Your task to perform on an android device: Is it going to rain this weekend? Image 0: 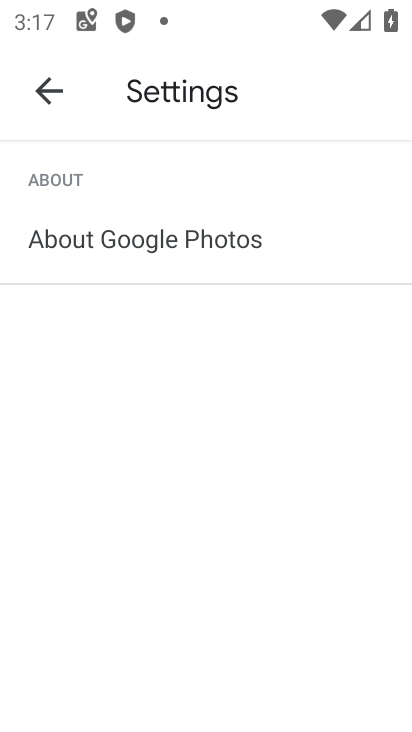
Step 0: click (41, 105)
Your task to perform on an android device: Is it going to rain this weekend? Image 1: 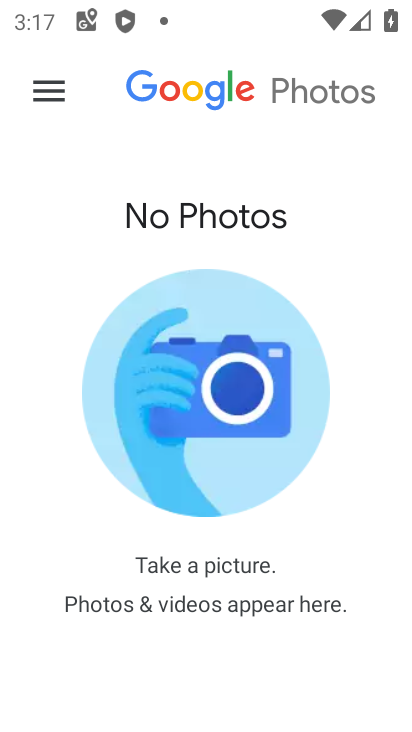
Step 1: press back button
Your task to perform on an android device: Is it going to rain this weekend? Image 2: 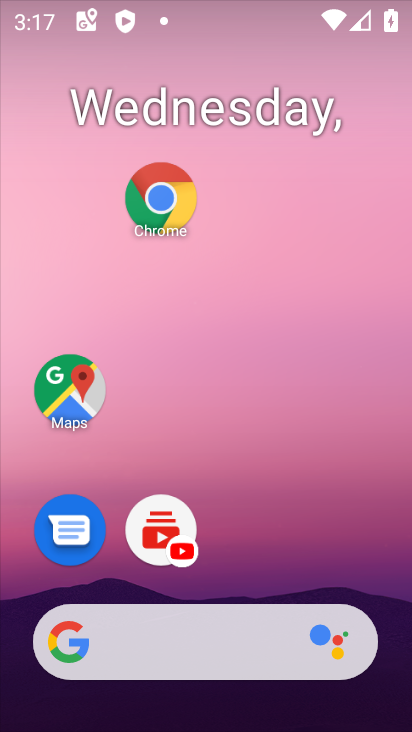
Step 2: drag from (289, 716) to (170, 209)
Your task to perform on an android device: Is it going to rain this weekend? Image 3: 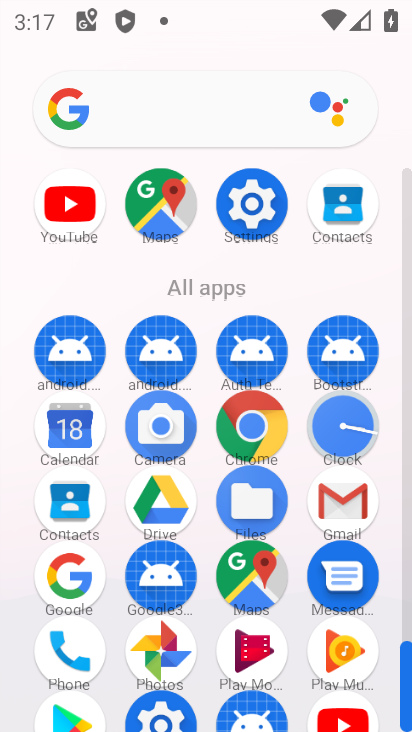
Step 3: press home button
Your task to perform on an android device: Is it going to rain this weekend? Image 4: 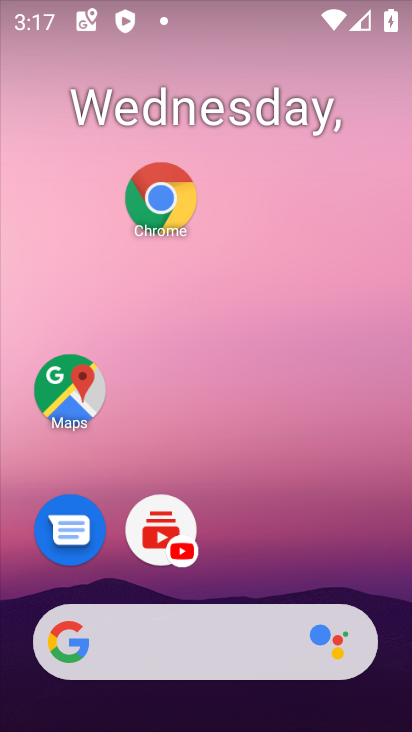
Step 4: drag from (6, 236) to (409, 536)
Your task to perform on an android device: Is it going to rain this weekend? Image 5: 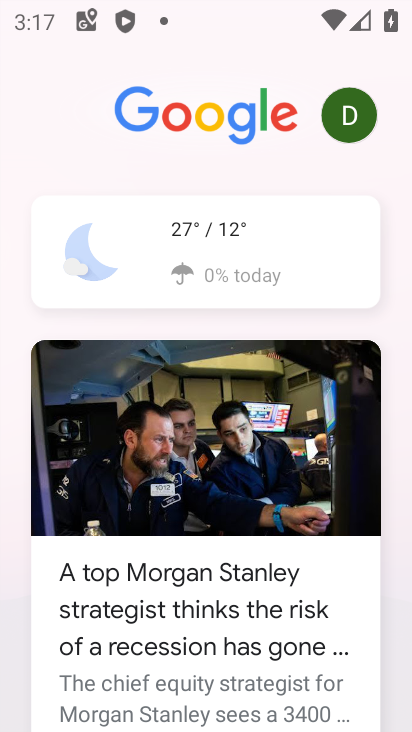
Step 5: click (185, 244)
Your task to perform on an android device: Is it going to rain this weekend? Image 6: 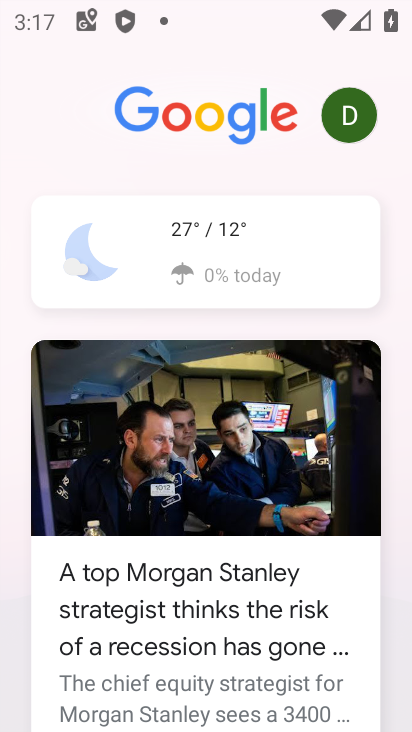
Step 6: click (185, 246)
Your task to perform on an android device: Is it going to rain this weekend? Image 7: 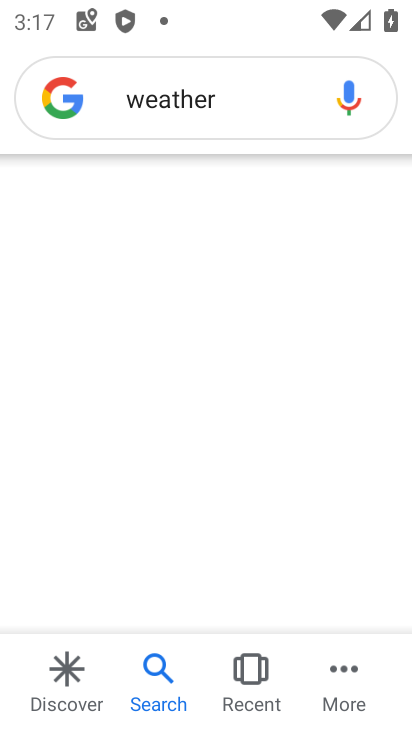
Step 7: click (184, 249)
Your task to perform on an android device: Is it going to rain this weekend? Image 8: 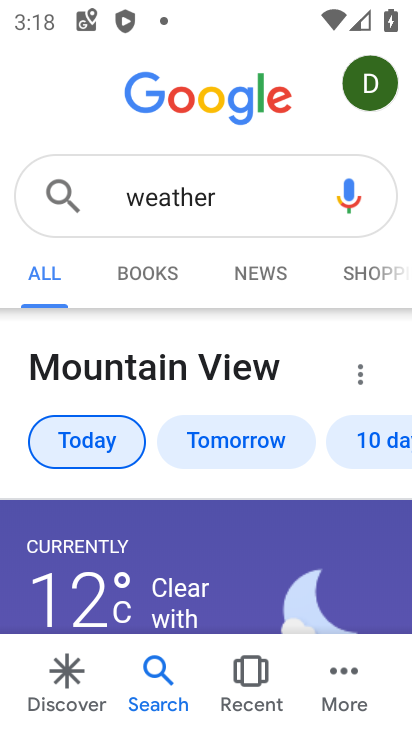
Step 8: task complete